Your task to perform on an android device: Go to Wikipedia Image 0: 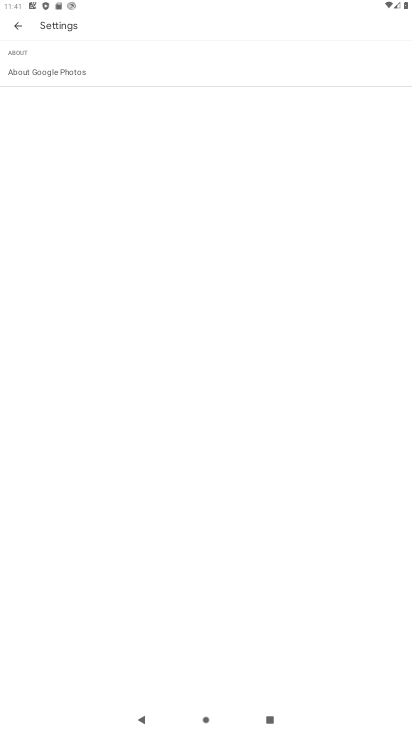
Step 0: press home button
Your task to perform on an android device: Go to Wikipedia Image 1: 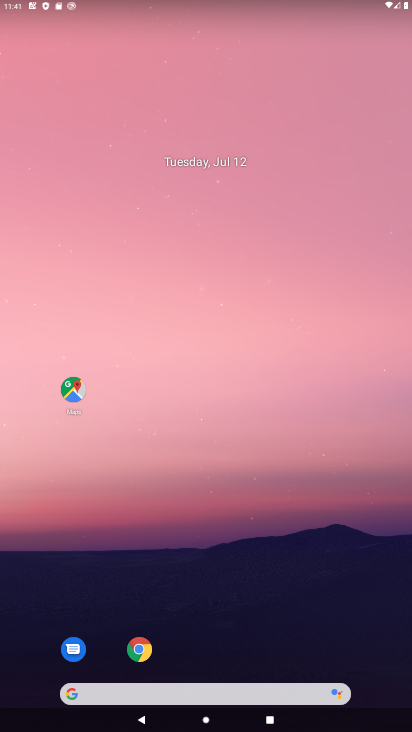
Step 1: click (138, 644)
Your task to perform on an android device: Go to Wikipedia Image 2: 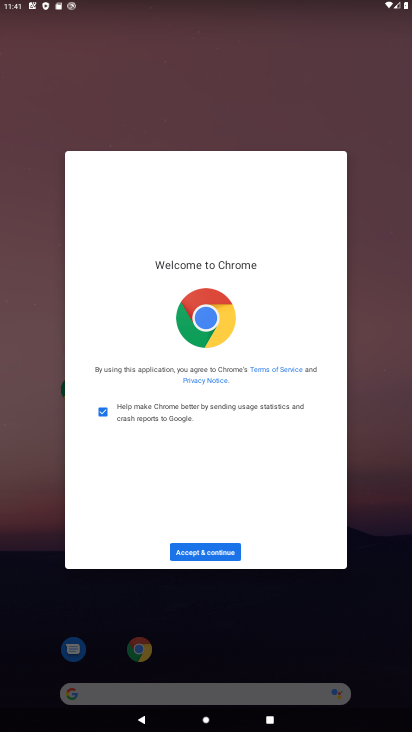
Step 2: click (196, 551)
Your task to perform on an android device: Go to Wikipedia Image 3: 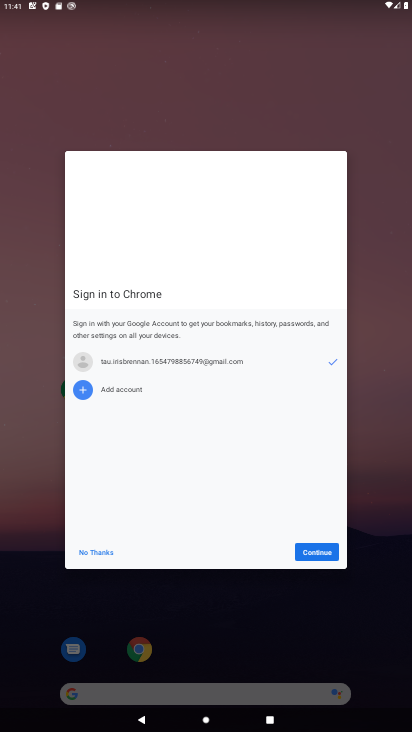
Step 3: click (324, 554)
Your task to perform on an android device: Go to Wikipedia Image 4: 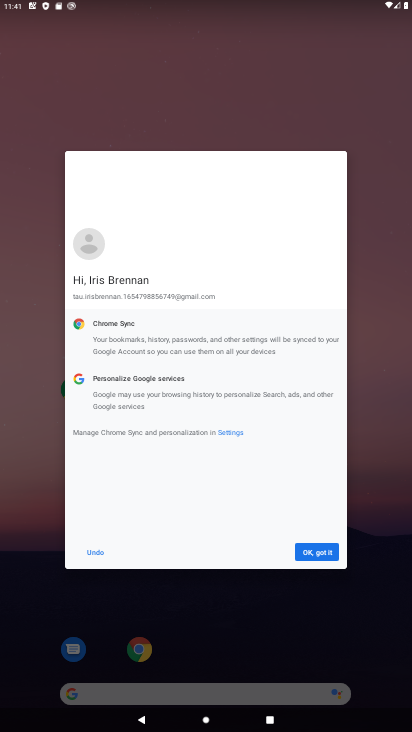
Step 4: click (324, 554)
Your task to perform on an android device: Go to Wikipedia Image 5: 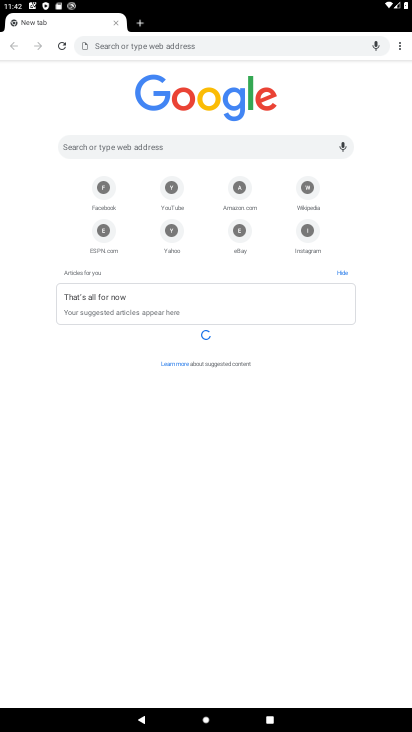
Step 5: click (303, 195)
Your task to perform on an android device: Go to Wikipedia Image 6: 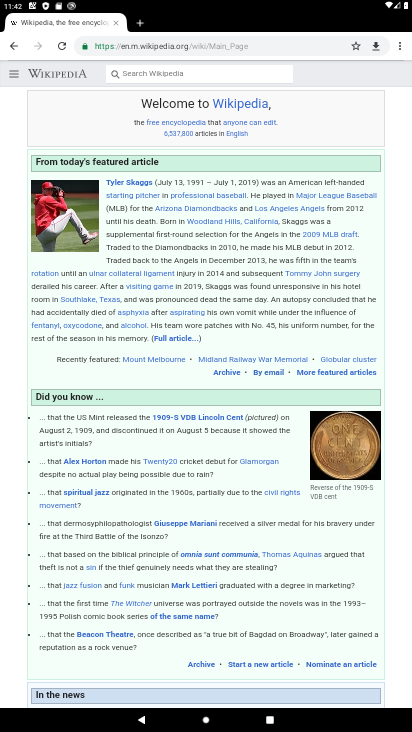
Step 6: task complete